Your task to perform on an android device: check google app version Image 0: 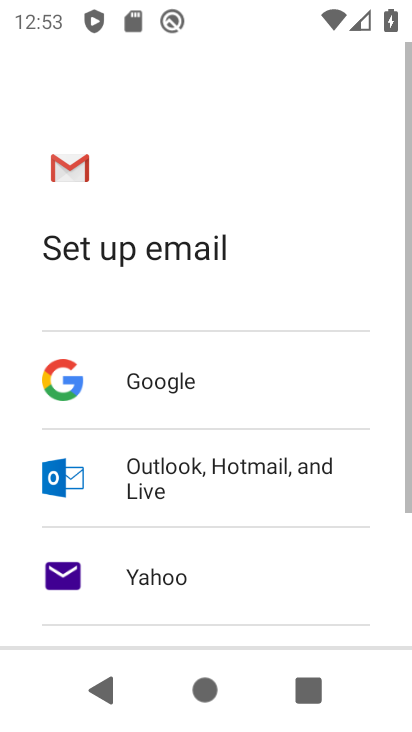
Step 0: press home button
Your task to perform on an android device: check google app version Image 1: 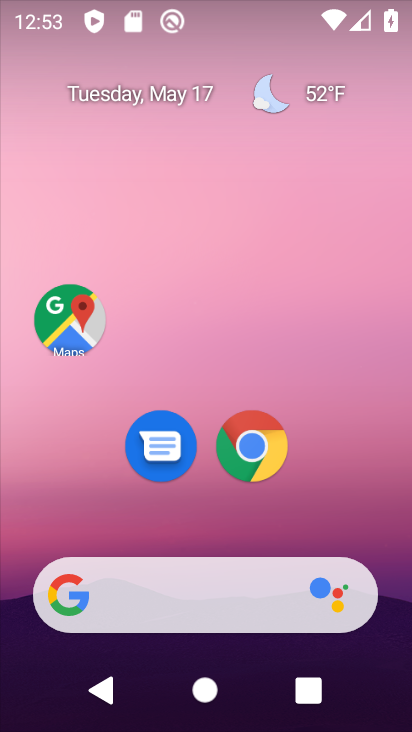
Step 1: drag from (363, 544) to (267, 146)
Your task to perform on an android device: check google app version Image 2: 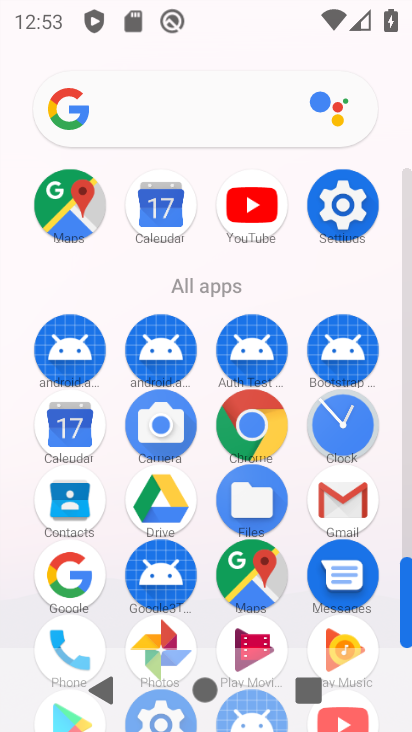
Step 2: click (77, 583)
Your task to perform on an android device: check google app version Image 3: 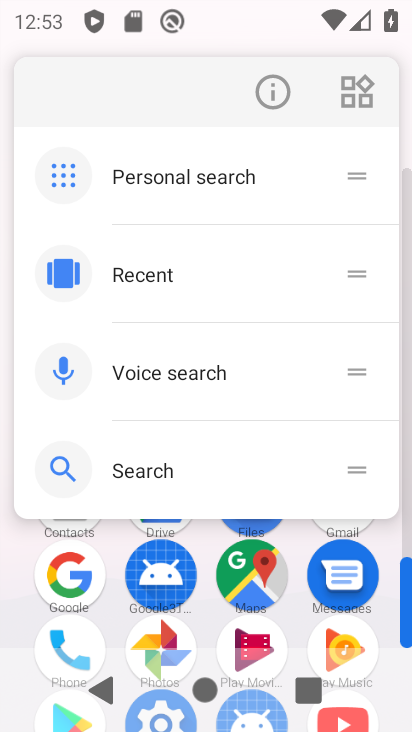
Step 3: click (272, 112)
Your task to perform on an android device: check google app version Image 4: 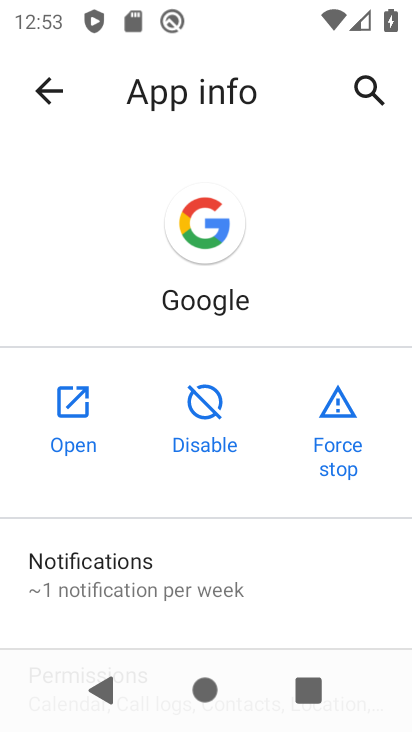
Step 4: drag from (324, 556) to (274, 279)
Your task to perform on an android device: check google app version Image 5: 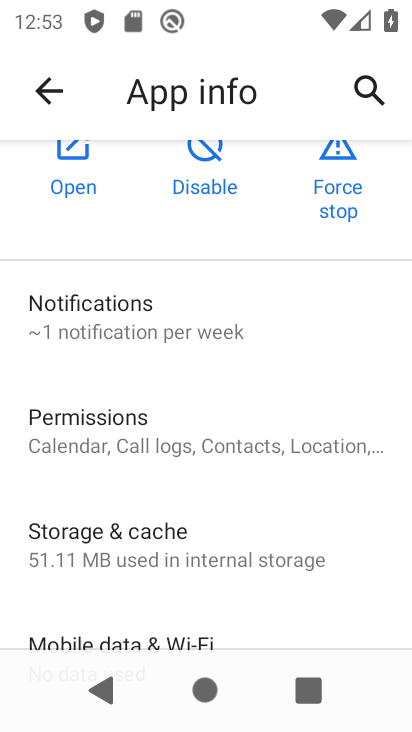
Step 5: drag from (282, 510) to (222, 157)
Your task to perform on an android device: check google app version Image 6: 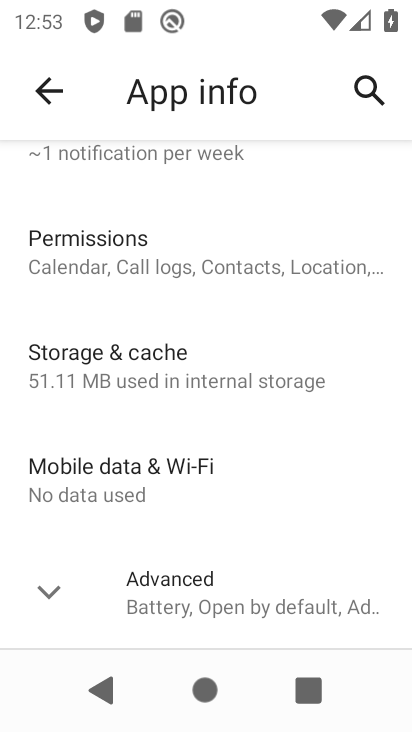
Step 6: click (61, 598)
Your task to perform on an android device: check google app version Image 7: 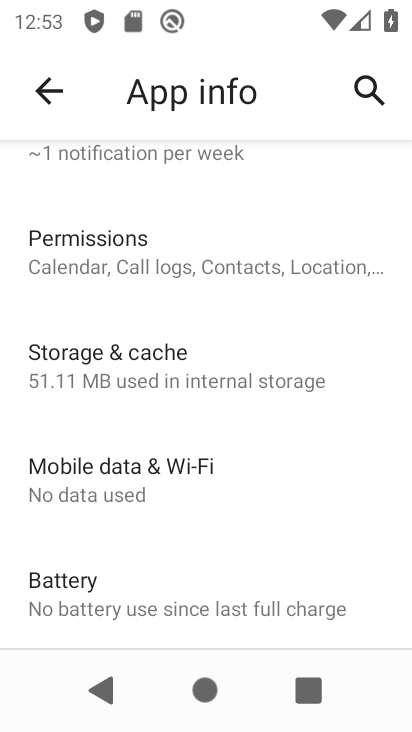
Step 7: task complete